Your task to perform on an android device: set the stopwatch Image 0: 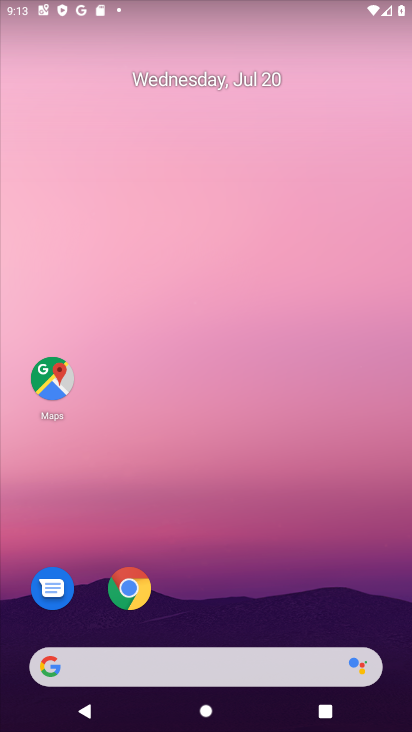
Step 0: drag from (129, 658) to (140, 354)
Your task to perform on an android device: set the stopwatch Image 1: 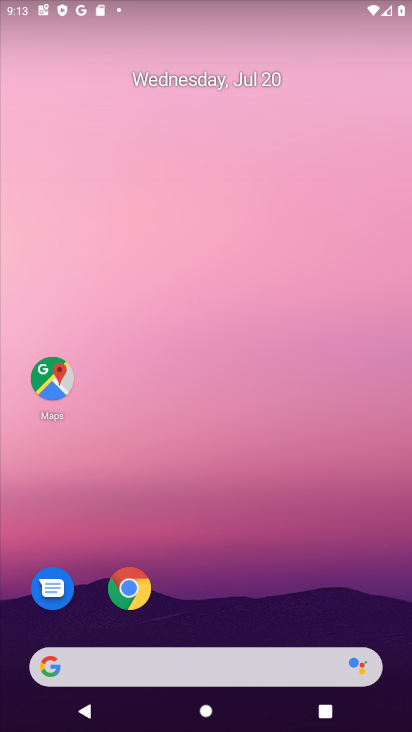
Step 1: drag from (250, 644) to (253, 191)
Your task to perform on an android device: set the stopwatch Image 2: 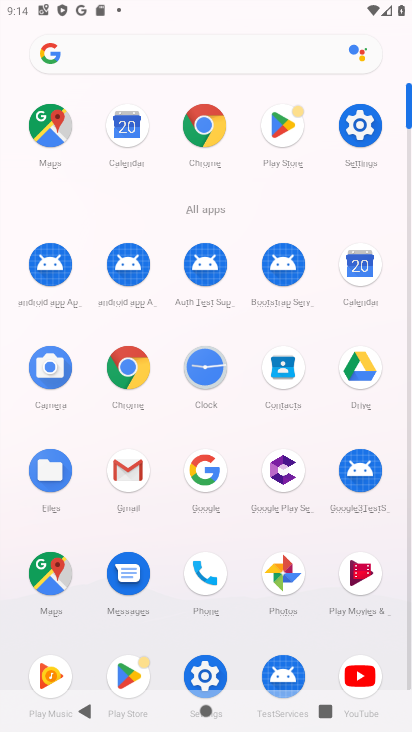
Step 2: press home button
Your task to perform on an android device: set the stopwatch Image 3: 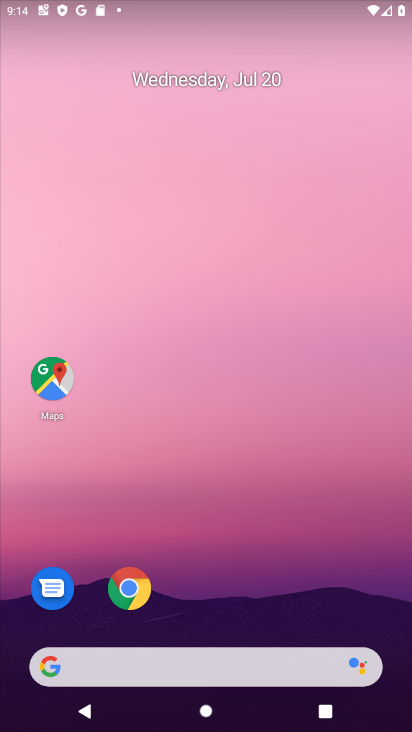
Step 3: drag from (254, 681) to (215, 170)
Your task to perform on an android device: set the stopwatch Image 4: 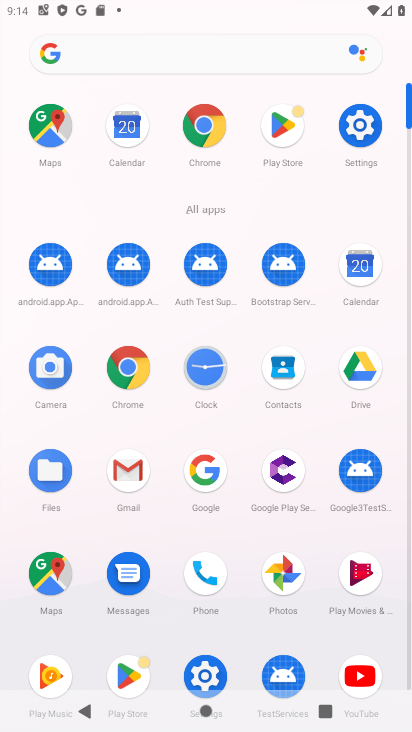
Step 4: click (220, 377)
Your task to perform on an android device: set the stopwatch Image 5: 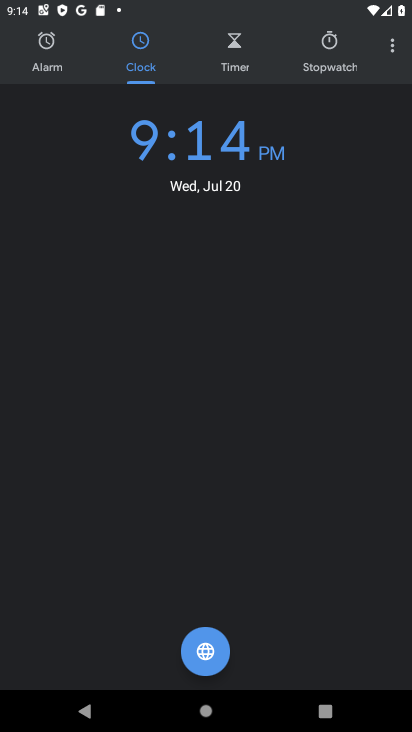
Step 5: click (323, 57)
Your task to perform on an android device: set the stopwatch Image 6: 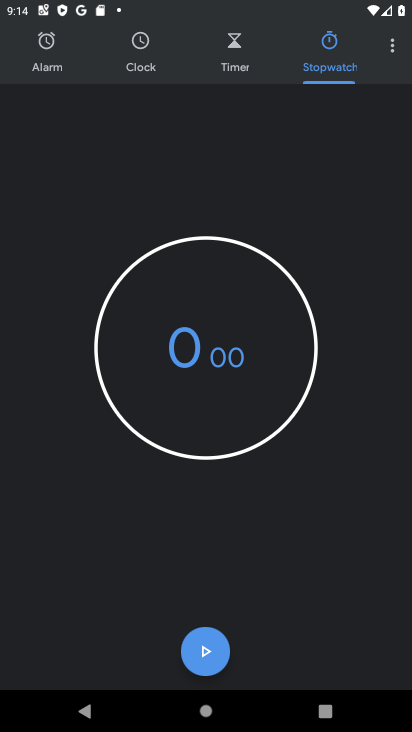
Step 6: click (202, 658)
Your task to perform on an android device: set the stopwatch Image 7: 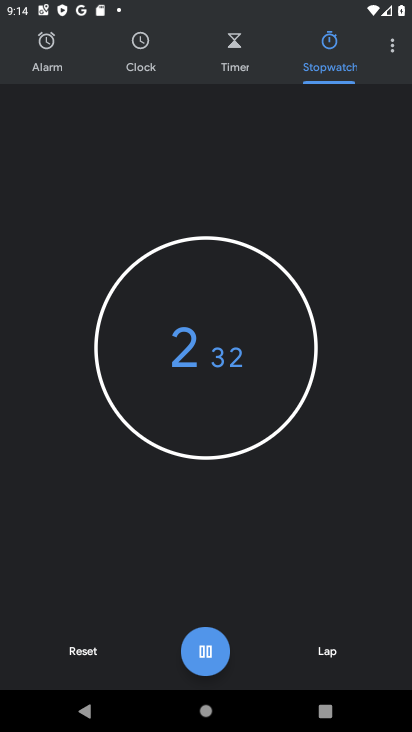
Step 7: task complete